Your task to perform on an android device: turn off priority inbox in the gmail app Image 0: 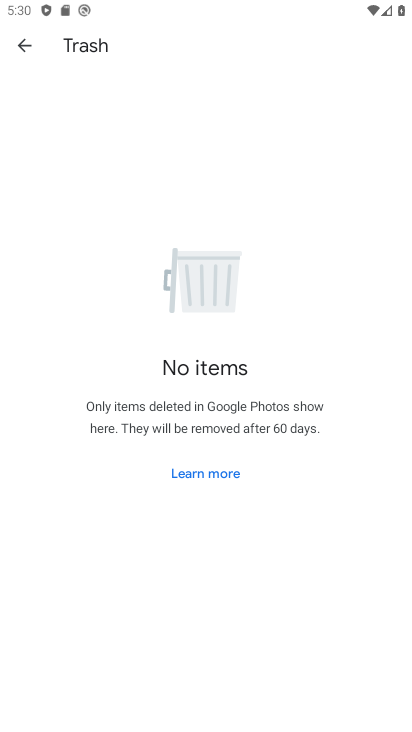
Step 0: press home button
Your task to perform on an android device: turn off priority inbox in the gmail app Image 1: 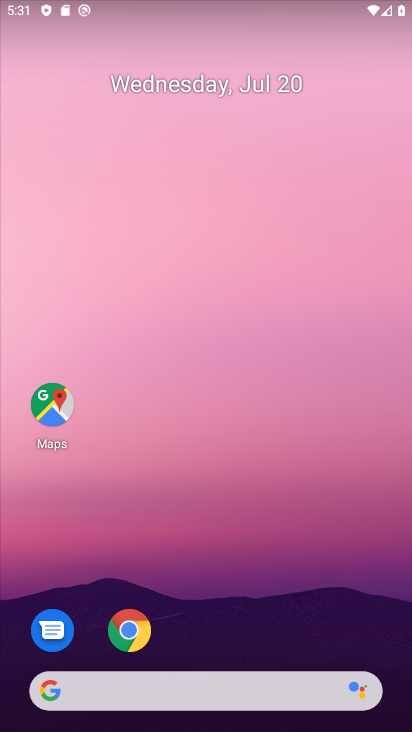
Step 1: drag from (195, 641) to (241, 104)
Your task to perform on an android device: turn off priority inbox in the gmail app Image 2: 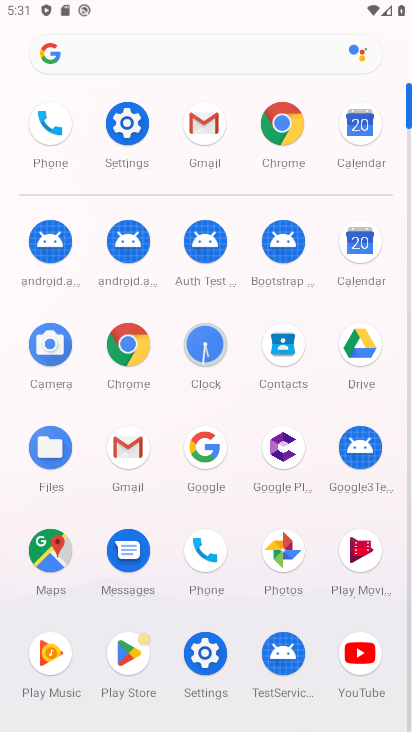
Step 2: click (128, 446)
Your task to perform on an android device: turn off priority inbox in the gmail app Image 3: 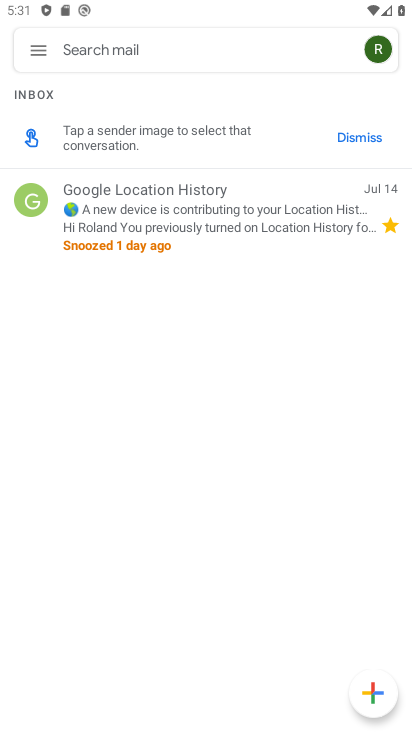
Step 3: click (30, 41)
Your task to perform on an android device: turn off priority inbox in the gmail app Image 4: 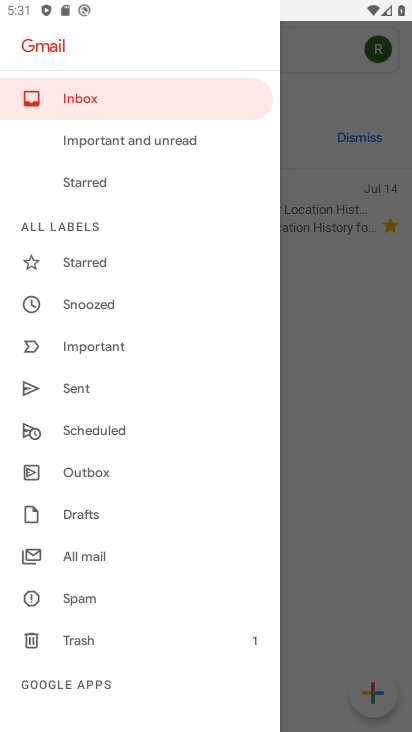
Step 4: drag from (91, 686) to (78, 387)
Your task to perform on an android device: turn off priority inbox in the gmail app Image 5: 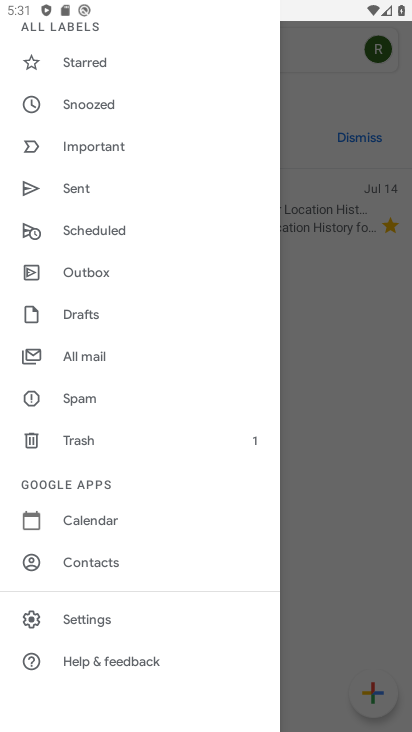
Step 5: click (115, 626)
Your task to perform on an android device: turn off priority inbox in the gmail app Image 6: 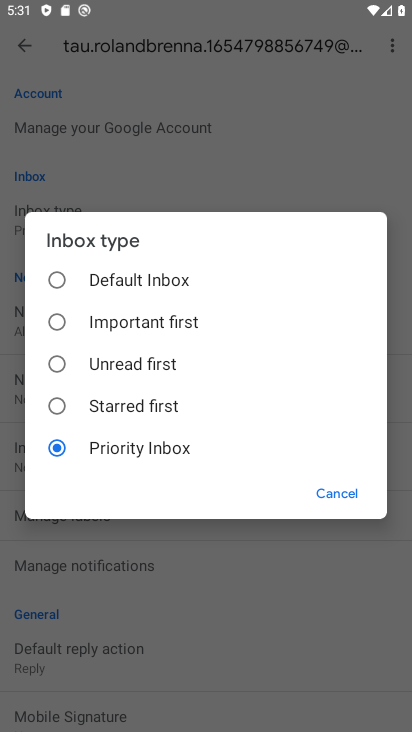
Step 6: click (59, 285)
Your task to perform on an android device: turn off priority inbox in the gmail app Image 7: 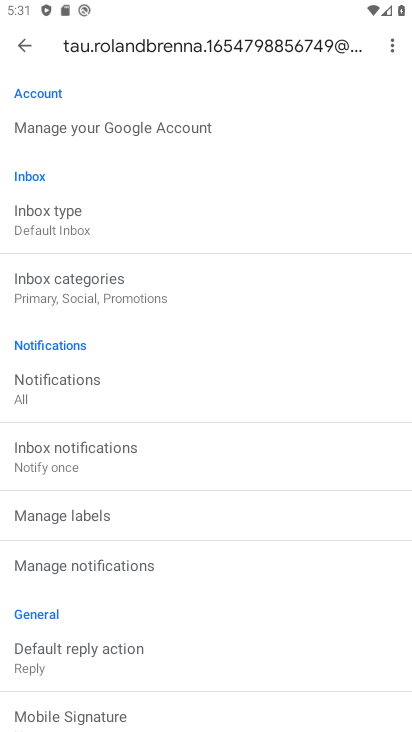
Step 7: task complete